Your task to perform on an android device: open sync settings in chrome Image 0: 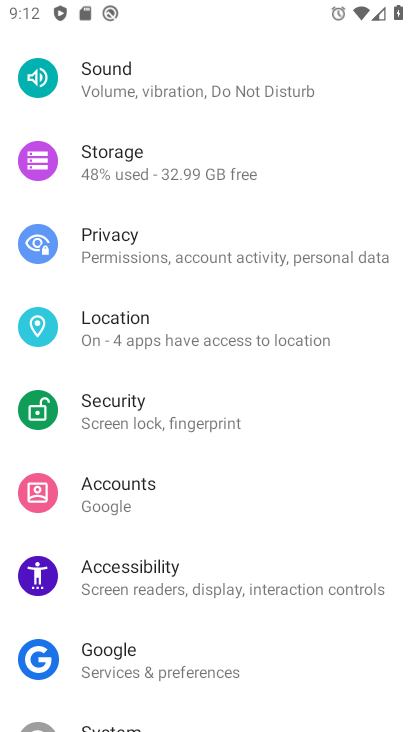
Step 0: press home button
Your task to perform on an android device: open sync settings in chrome Image 1: 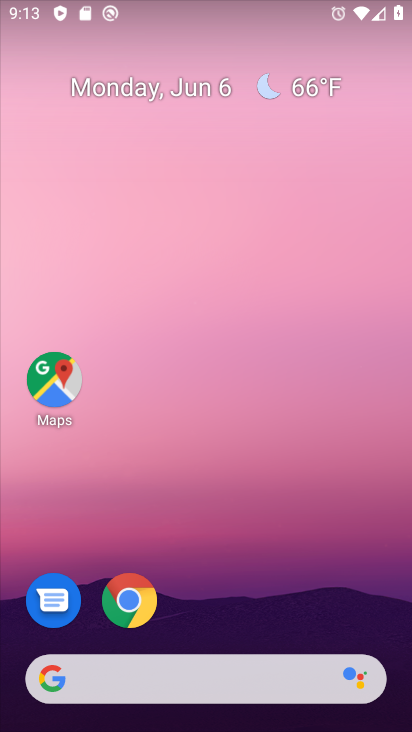
Step 1: click (107, 608)
Your task to perform on an android device: open sync settings in chrome Image 2: 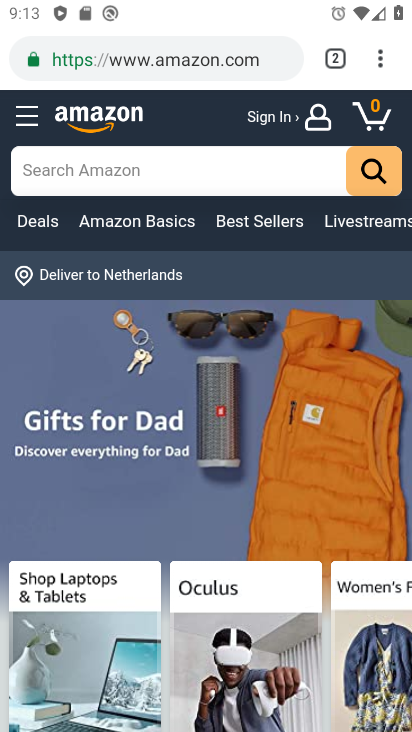
Step 2: click (381, 58)
Your task to perform on an android device: open sync settings in chrome Image 3: 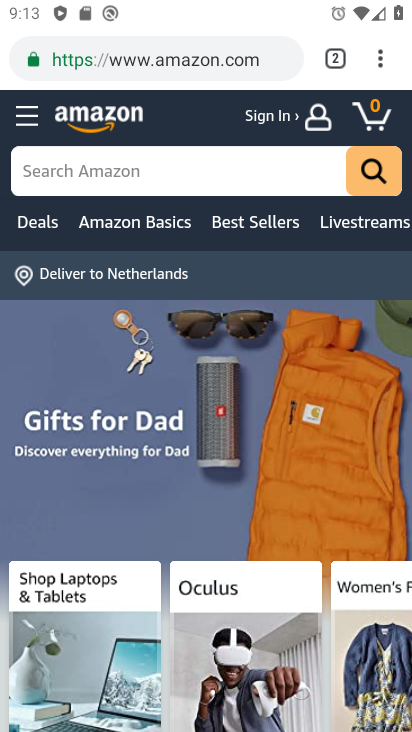
Step 3: click (380, 51)
Your task to perform on an android device: open sync settings in chrome Image 4: 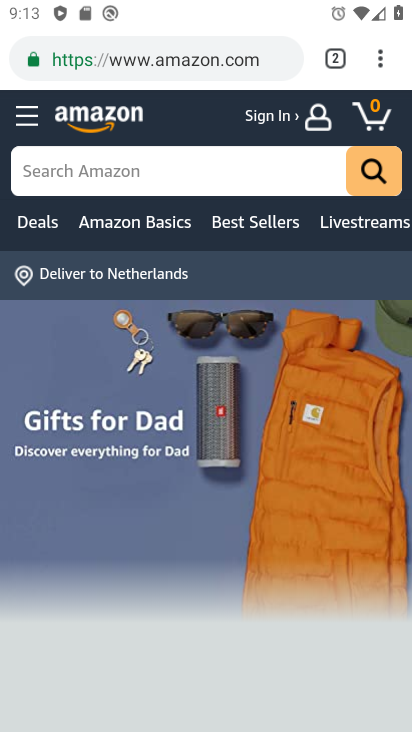
Step 4: click (380, 59)
Your task to perform on an android device: open sync settings in chrome Image 5: 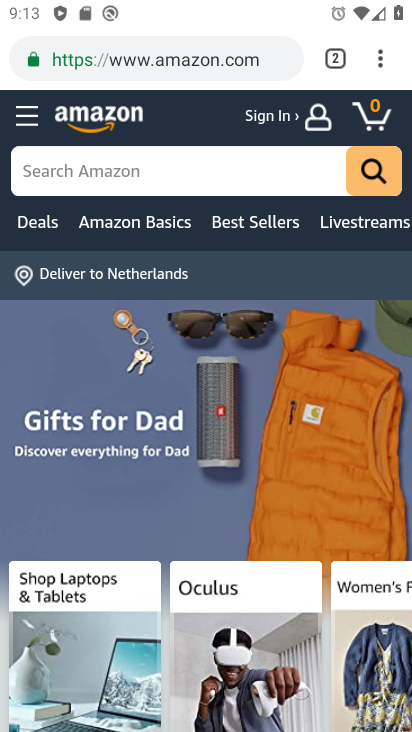
Step 5: click (384, 68)
Your task to perform on an android device: open sync settings in chrome Image 6: 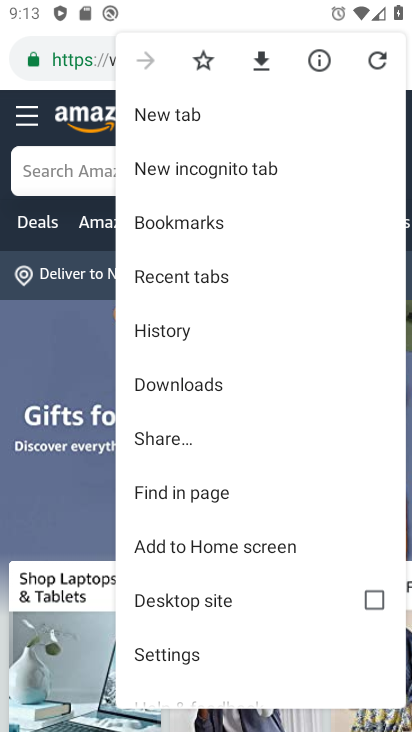
Step 6: click (145, 659)
Your task to perform on an android device: open sync settings in chrome Image 7: 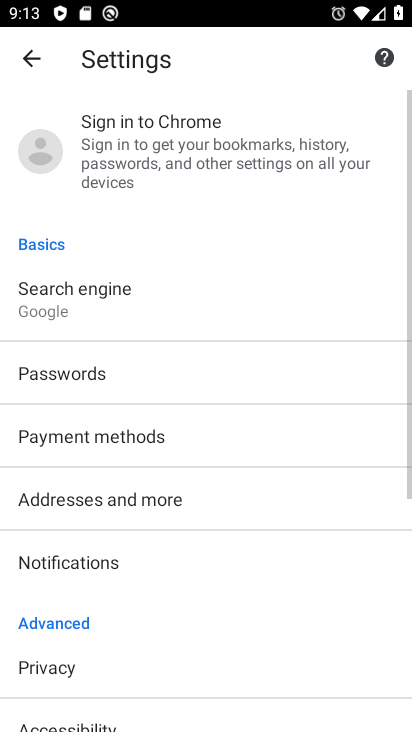
Step 7: drag from (9, 587) to (244, 110)
Your task to perform on an android device: open sync settings in chrome Image 8: 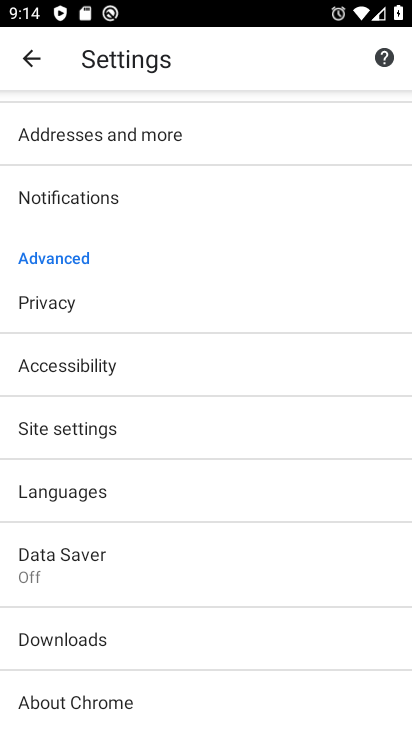
Step 8: drag from (38, 578) to (153, 337)
Your task to perform on an android device: open sync settings in chrome Image 9: 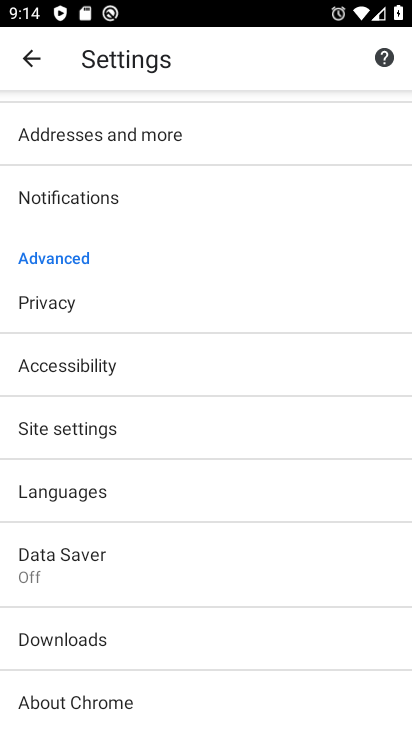
Step 9: drag from (32, 528) to (226, 226)
Your task to perform on an android device: open sync settings in chrome Image 10: 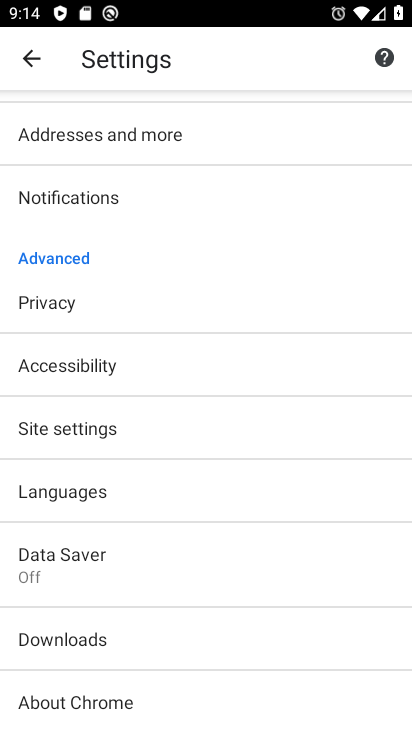
Step 10: drag from (90, 414) to (239, 141)
Your task to perform on an android device: open sync settings in chrome Image 11: 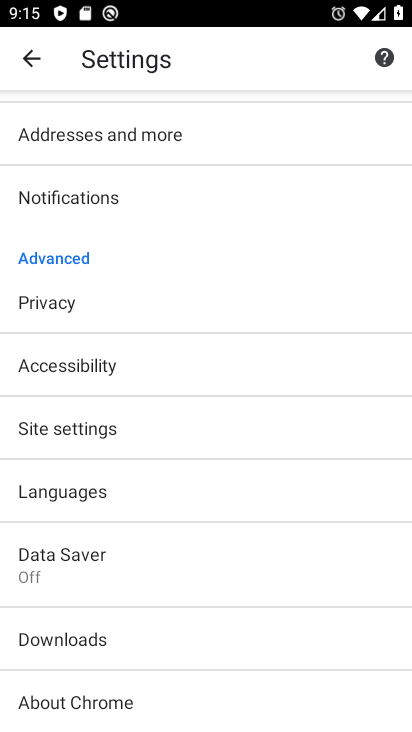
Step 11: click (145, 423)
Your task to perform on an android device: open sync settings in chrome Image 12: 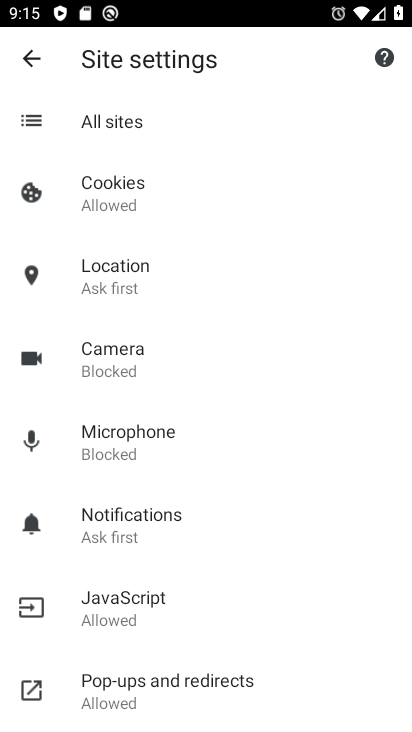
Step 12: drag from (21, 497) to (202, 158)
Your task to perform on an android device: open sync settings in chrome Image 13: 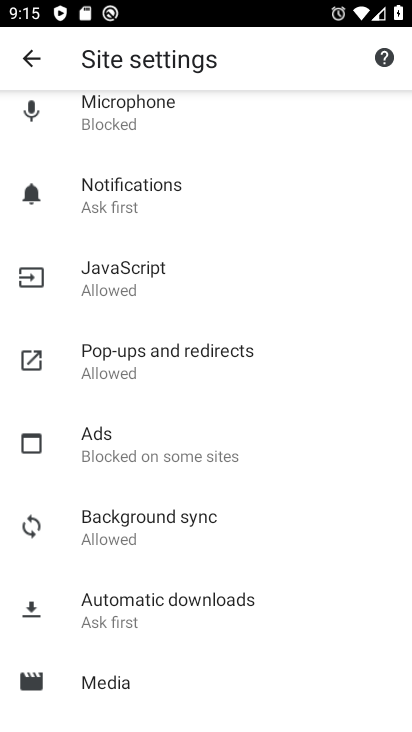
Step 13: click (182, 531)
Your task to perform on an android device: open sync settings in chrome Image 14: 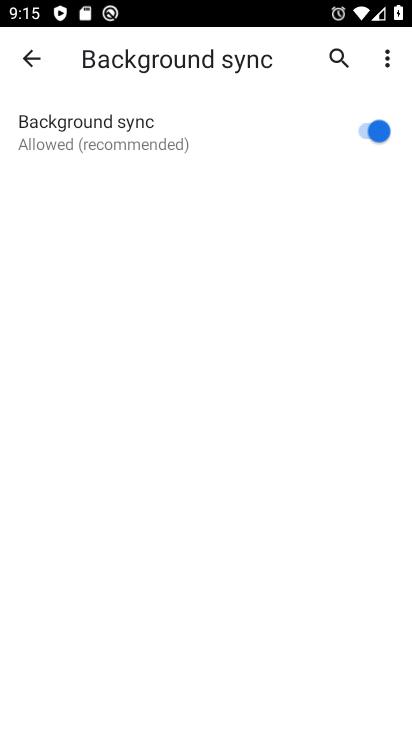
Step 14: task complete